Your task to perform on an android device: Go to eBay Image 0: 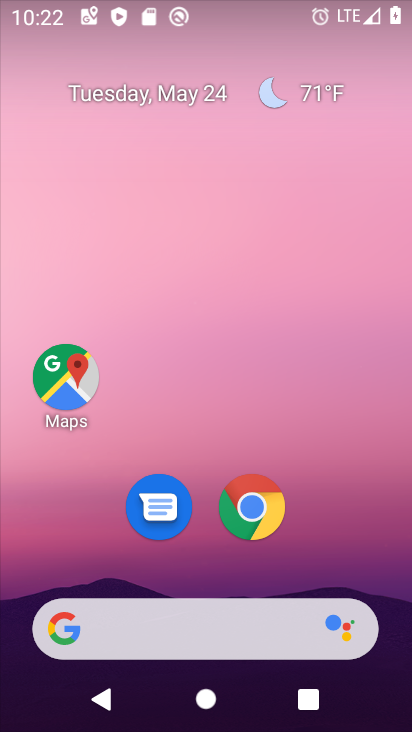
Step 0: click (250, 506)
Your task to perform on an android device: Go to eBay Image 1: 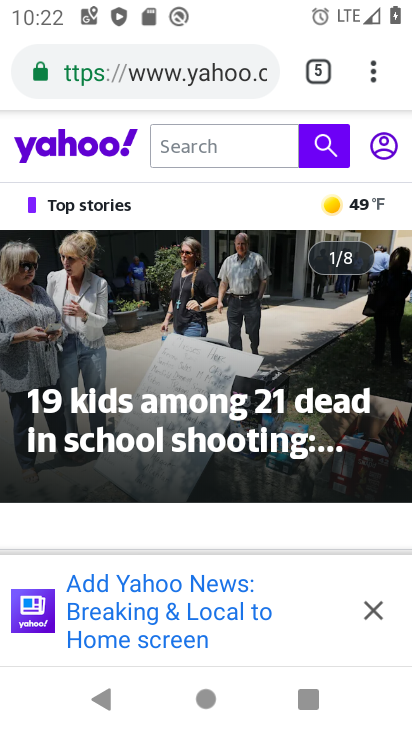
Step 1: click (377, 76)
Your task to perform on an android device: Go to eBay Image 2: 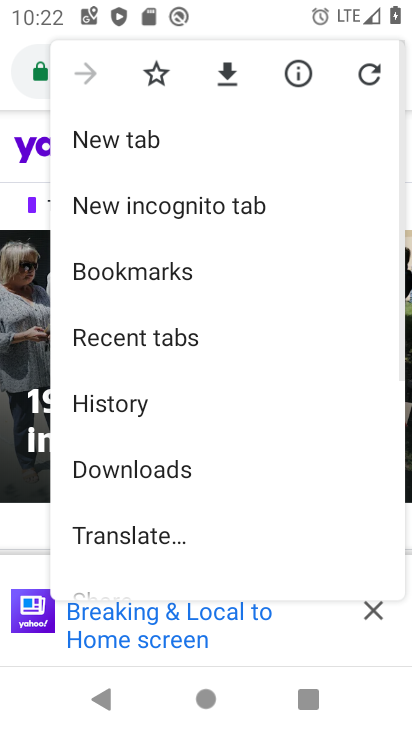
Step 2: click (99, 135)
Your task to perform on an android device: Go to eBay Image 3: 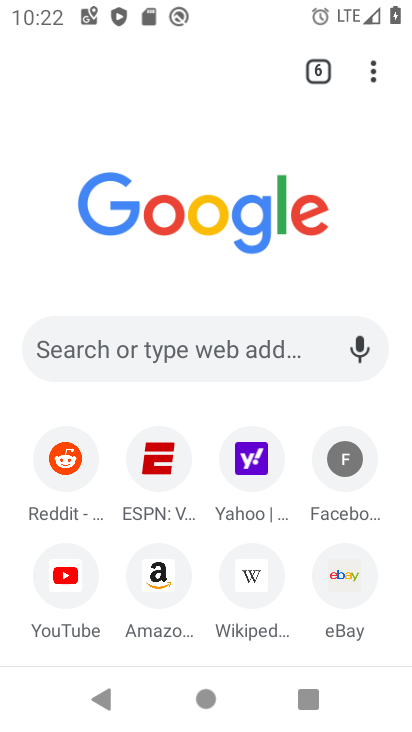
Step 3: click (350, 576)
Your task to perform on an android device: Go to eBay Image 4: 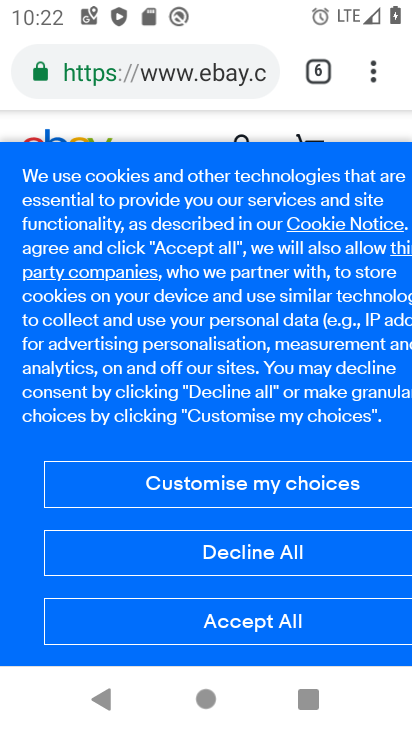
Step 4: task complete